Your task to perform on an android device: Go to Wikipedia Image 0: 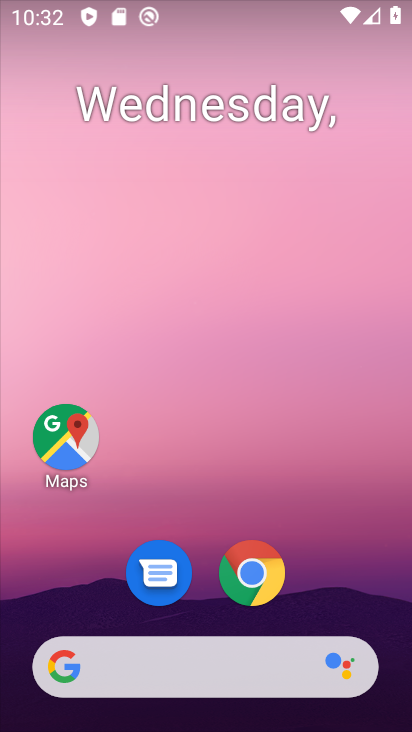
Step 0: click (254, 578)
Your task to perform on an android device: Go to Wikipedia Image 1: 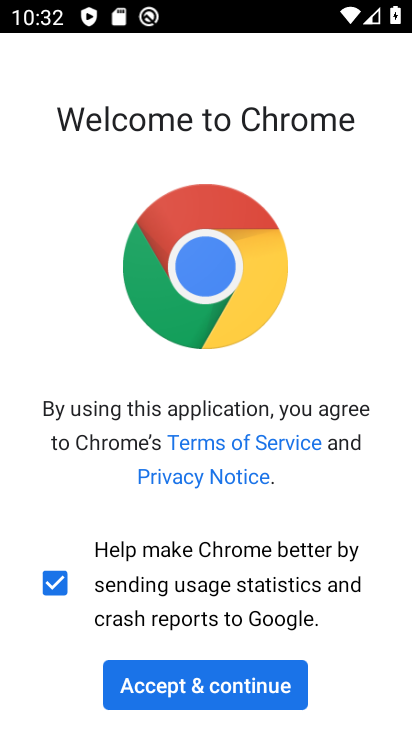
Step 1: click (214, 679)
Your task to perform on an android device: Go to Wikipedia Image 2: 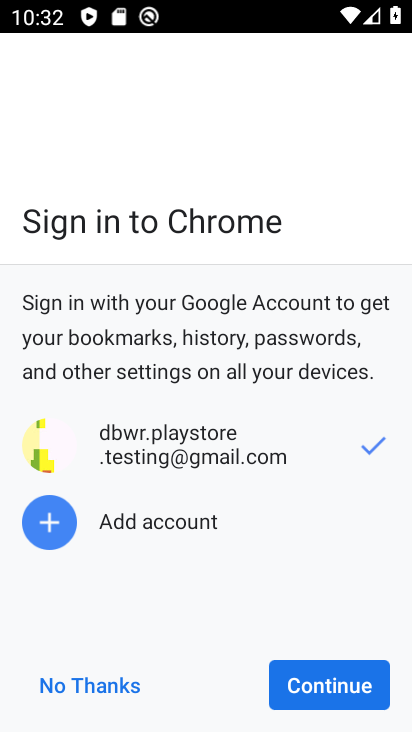
Step 2: click (342, 683)
Your task to perform on an android device: Go to Wikipedia Image 3: 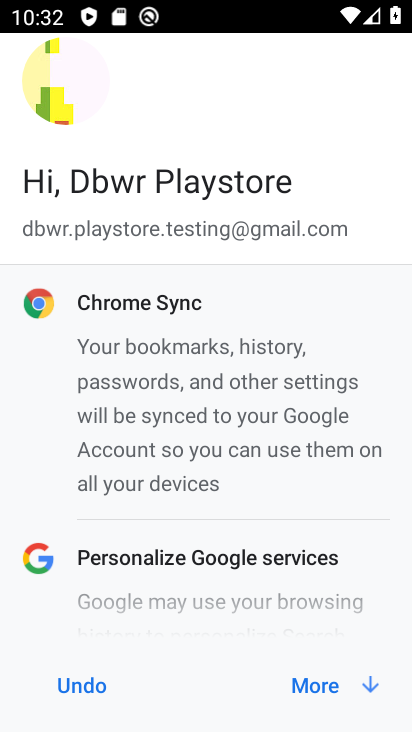
Step 3: click (342, 683)
Your task to perform on an android device: Go to Wikipedia Image 4: 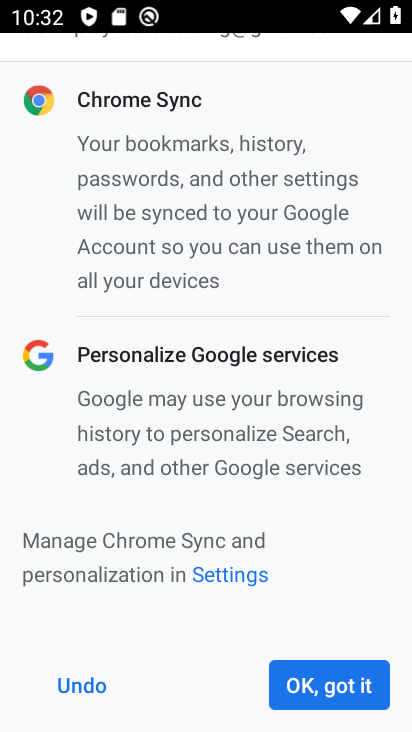
Step 4: click (342, 683)
Your task to perform on an android device: Go to Wikipedia Image 5: 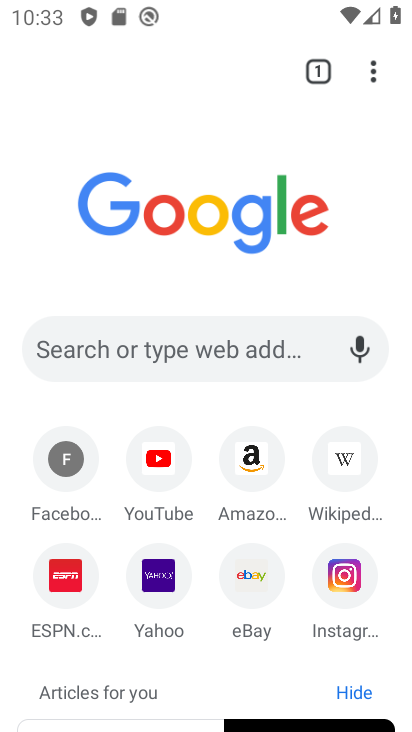
Step 5: click (347, 465)
Your task to perform on an android device: Go to Wikipedia Image 6: 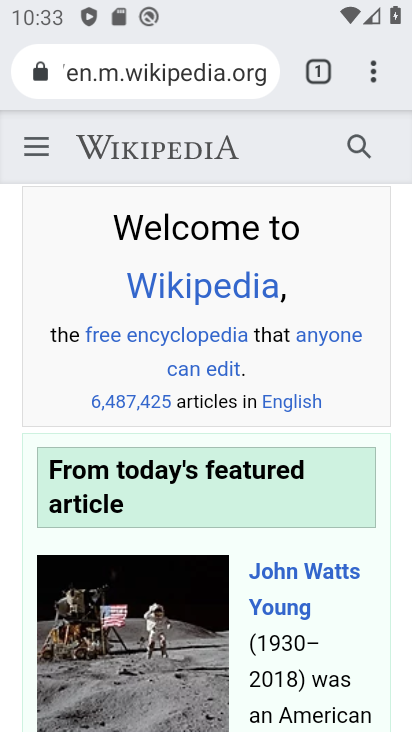
Step 6: task complete